Your task to perform on an android device: toggle wifi Image 0: 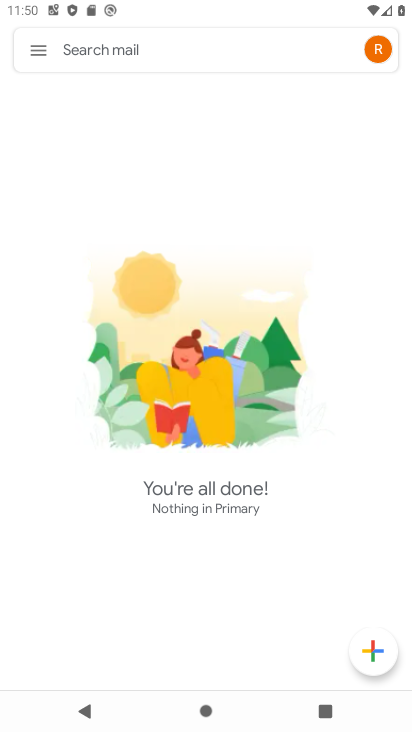
Step 0: press home button
Your task to perform on an android device: toggle wifi Image 1: 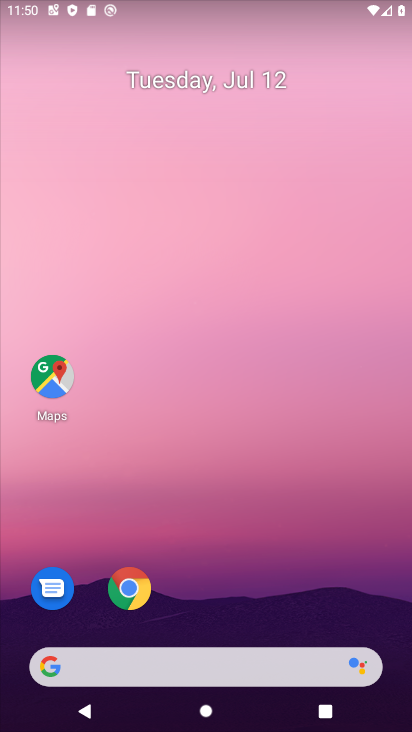
Step 1: drag from (389, 649) to (302, 246)
Your task to perform on an android device: toggle wifi Image 2: 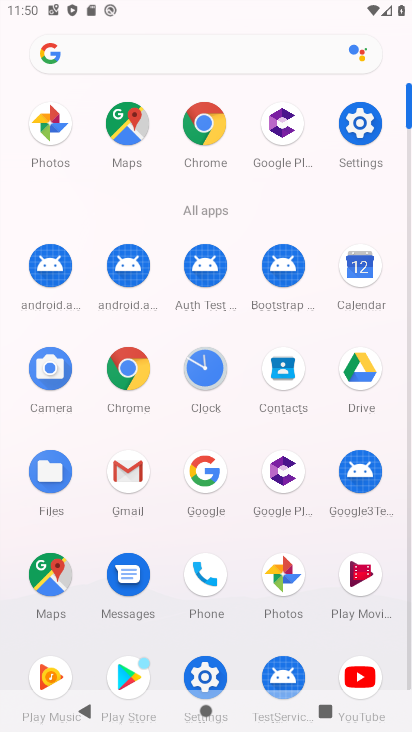
Step 2: click (356, 129)
Your task to perform on an android device: toggle wifi Image 3: 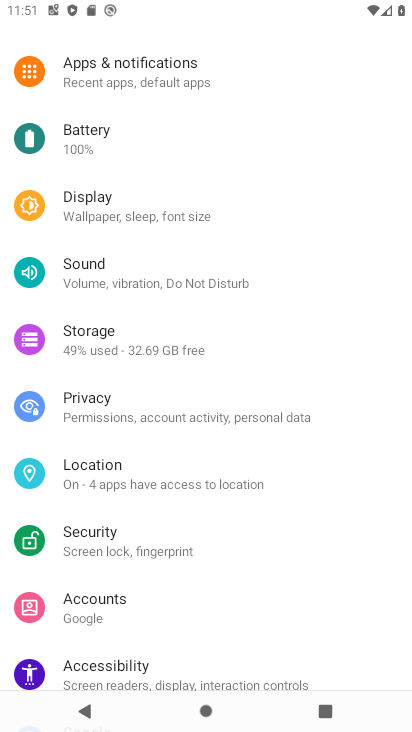
Step 3: drag from (349, 102) to (410, 543)
Your task to perform on an android device: toggle wifi Image 4: 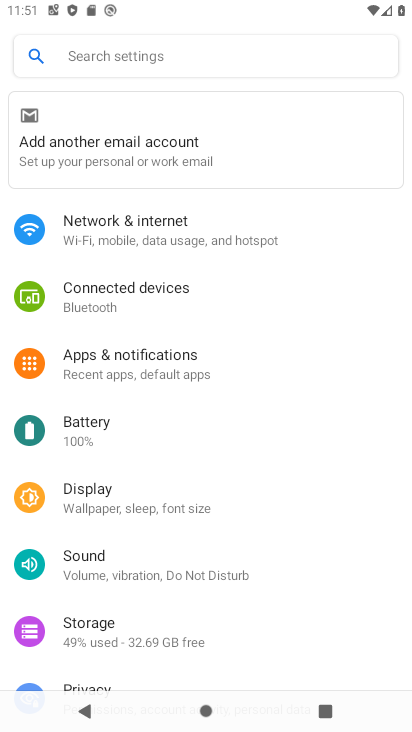
Step 4: drag from (322, 137) to (373, 588)
Your task to perform on an android device: toggle wifi Image 5: 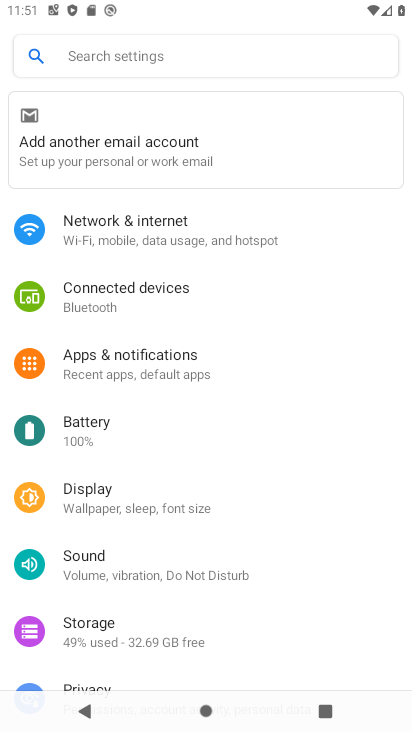
Step 5: click (141, 222)
Your task to perform on an android device: toggle wifi Image 6: 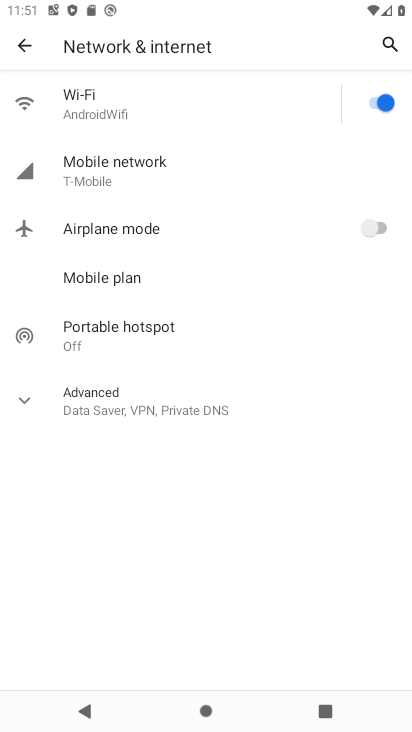
Step 6: click (376, 104)
Your task to perform on an android device: toggle wifi Image 7: 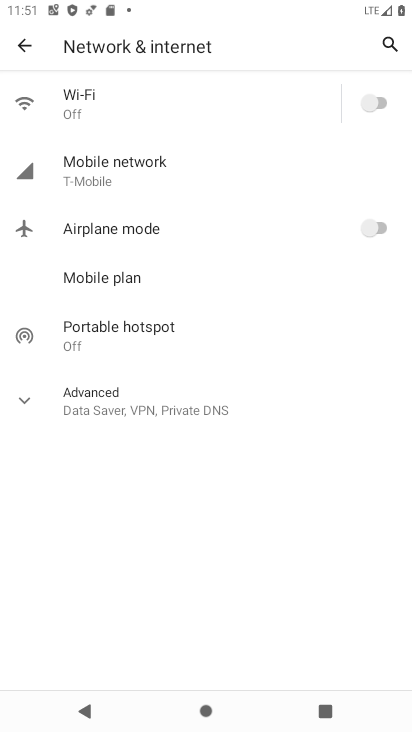
Step 7: task complete